Your task to perform on an android device: Clear all items from cart on walmart. Add "razer kraken" to the cart on walmart, then select checkout. Image 0: 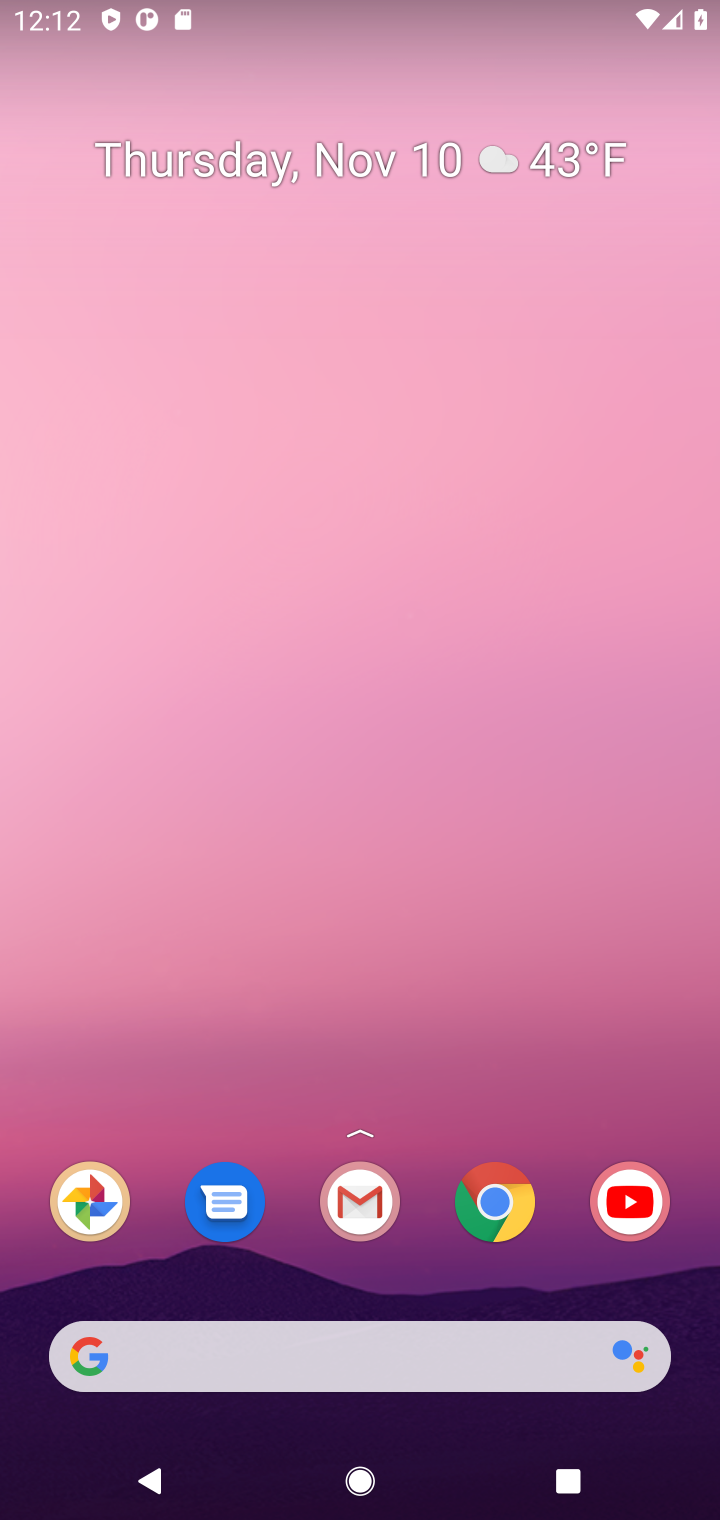
Step 0: click (513, 1206)
Your task to perform on an android device: Clear all items from cart on walmart. Add "razer kraken" to the cart on walmart, then select checkout. Image 1: 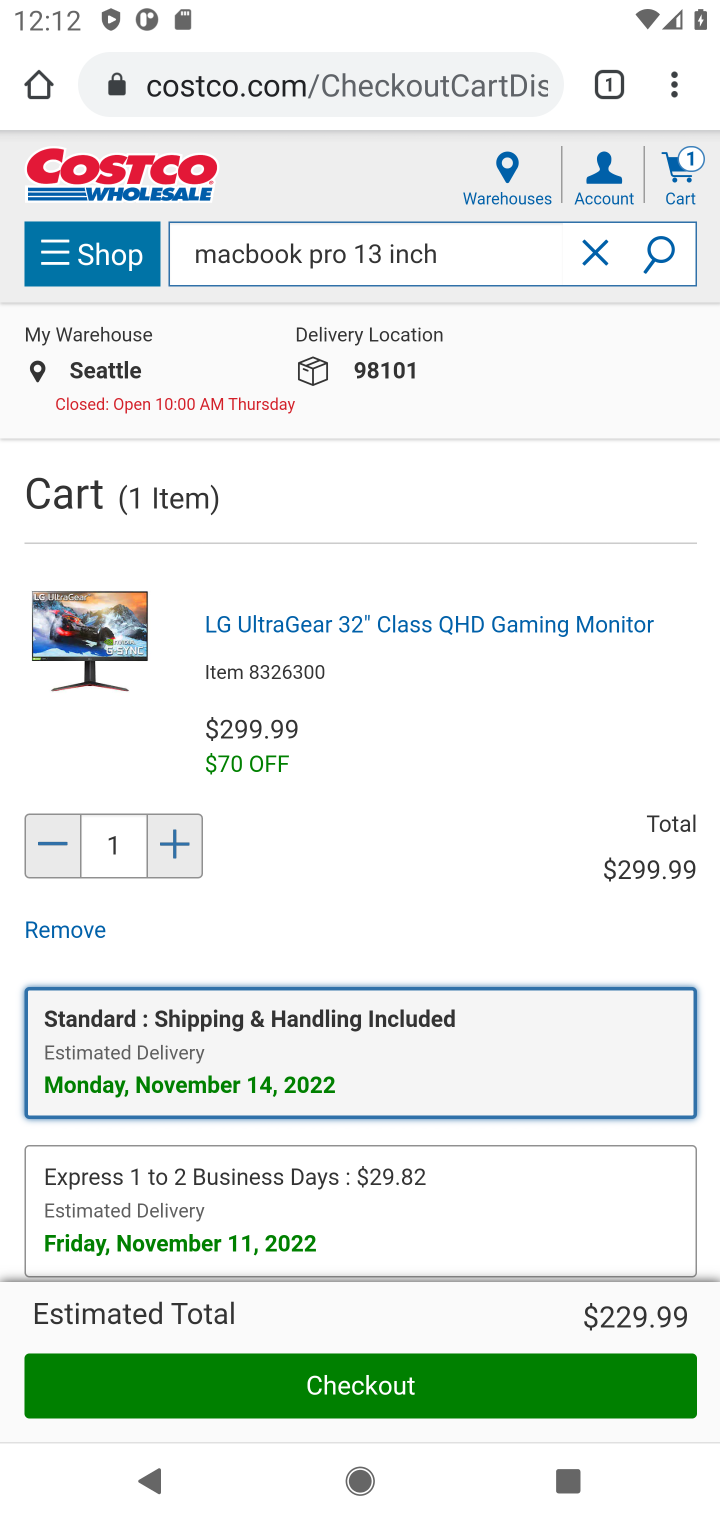
Step 1: click (276, 73)
Your task to perform on an android device: Clear all items from cart on walmart. Add "razer kraken" to the cart on walmart, then select checkout. Image 2: 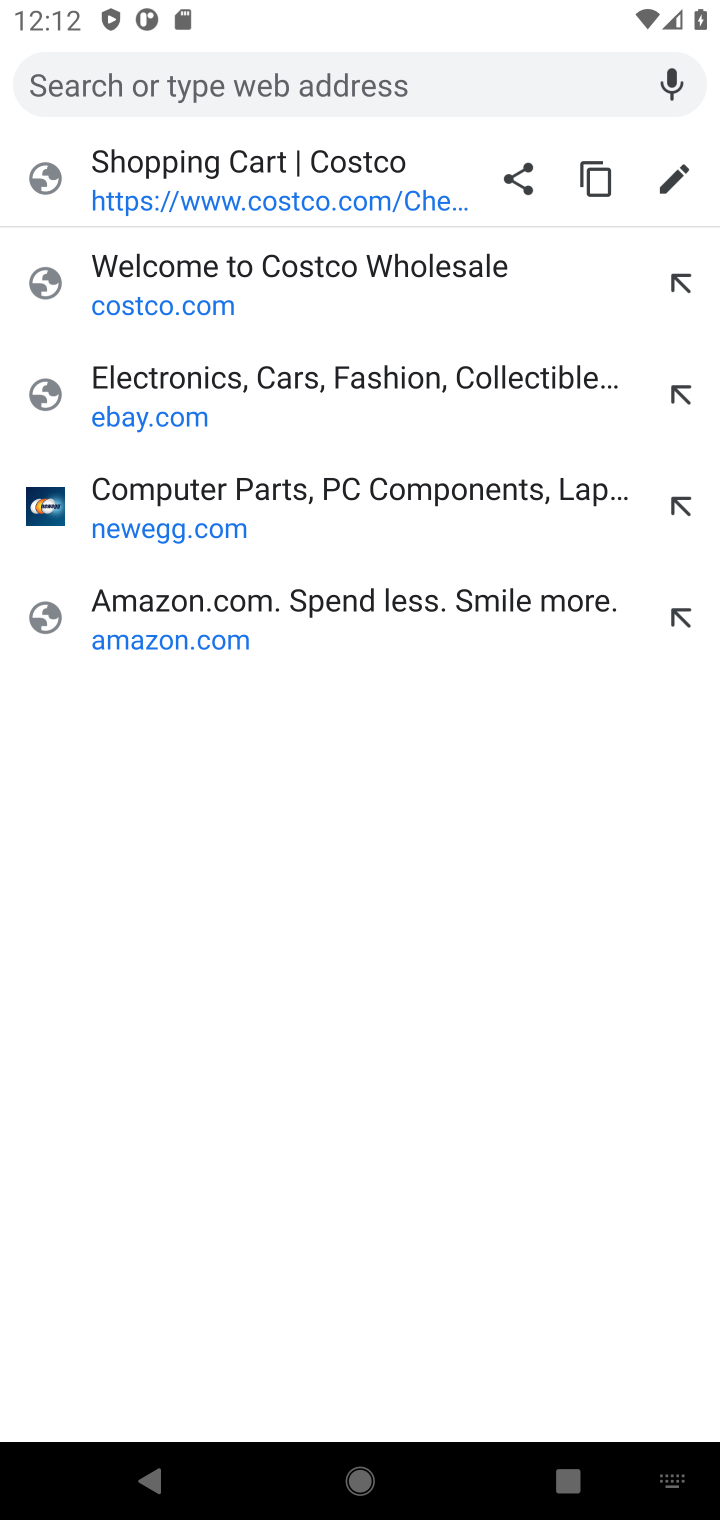
Step 2: type "walmart"
Your task to perform on an android device: Clear all items from cart on walmart. Add "razer kraken" to the cart on walmart, then select checkout. Image 3: 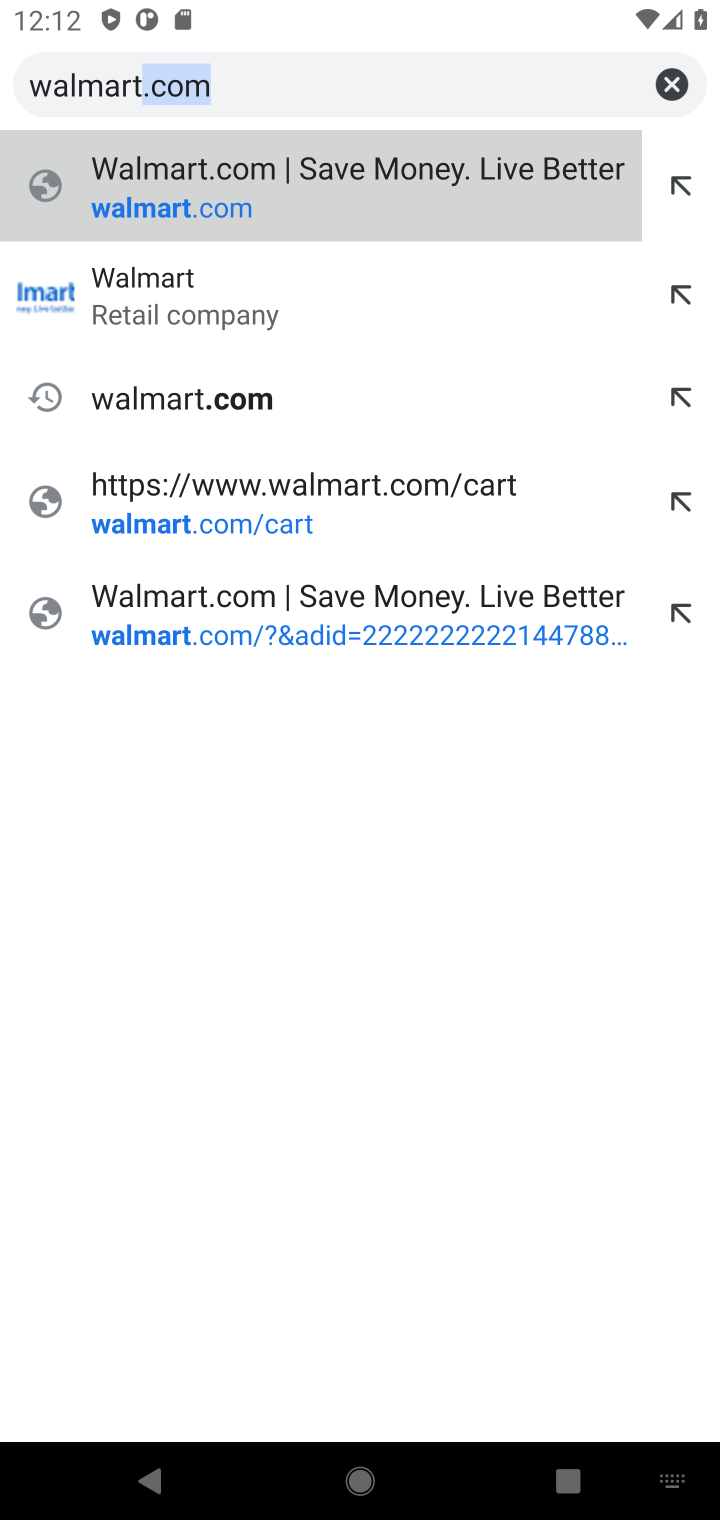
Step 3: press enter
Your task to perform on an android device: Clear all items from cart on walmart. Add "razer kraken" to the cart on walmart, then select checkout. Image 4: 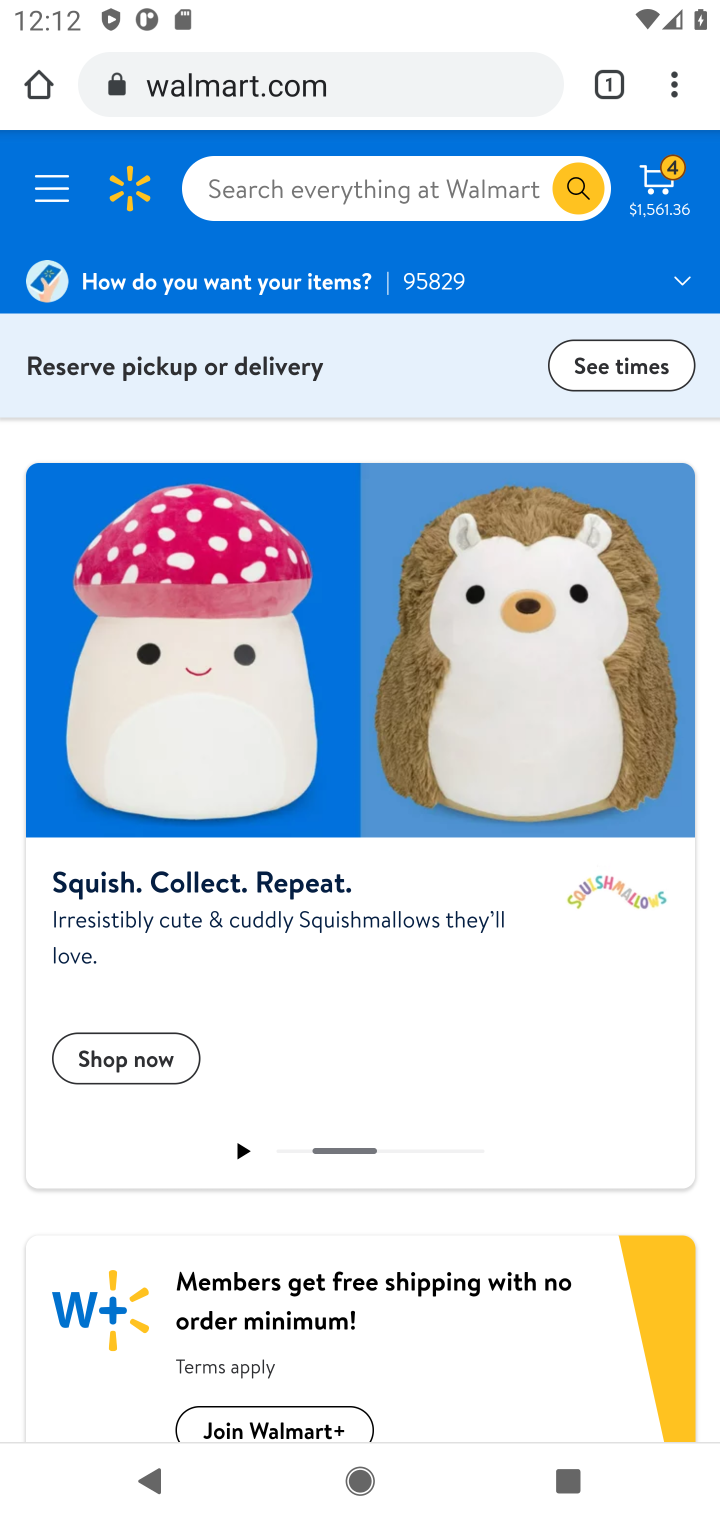
Step 4: click (669, 199)
Your task to perform on an android device: Clear all items from cart on walmart. Add "razer kraken" to the cart on walmart, then select checkout. Image 5: 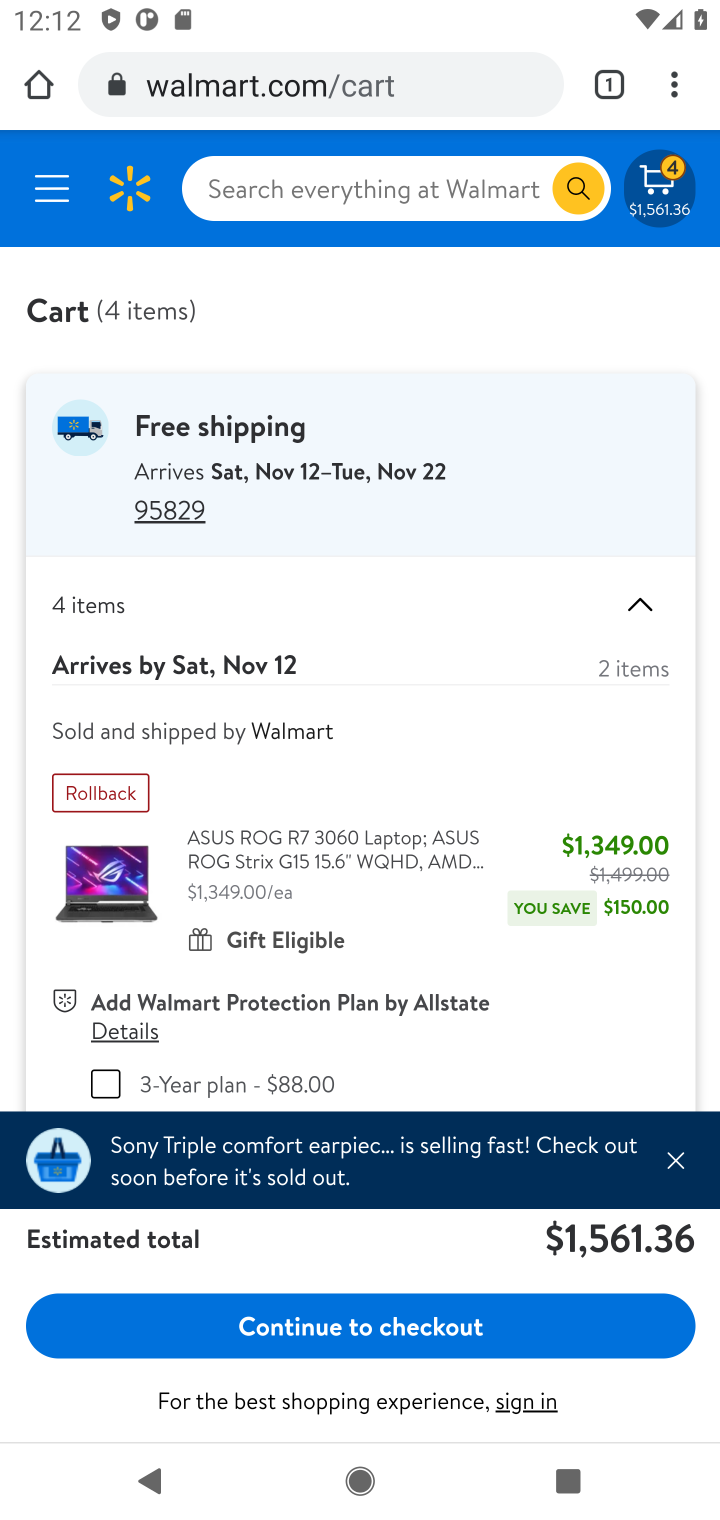
Step 5: drag from (513, 865) to (520, 481)
Your task to perform on an android device: Clear all items from cart on walmart. Add "razer kraken" to the cart on walmart, then select checkout. Image 6: 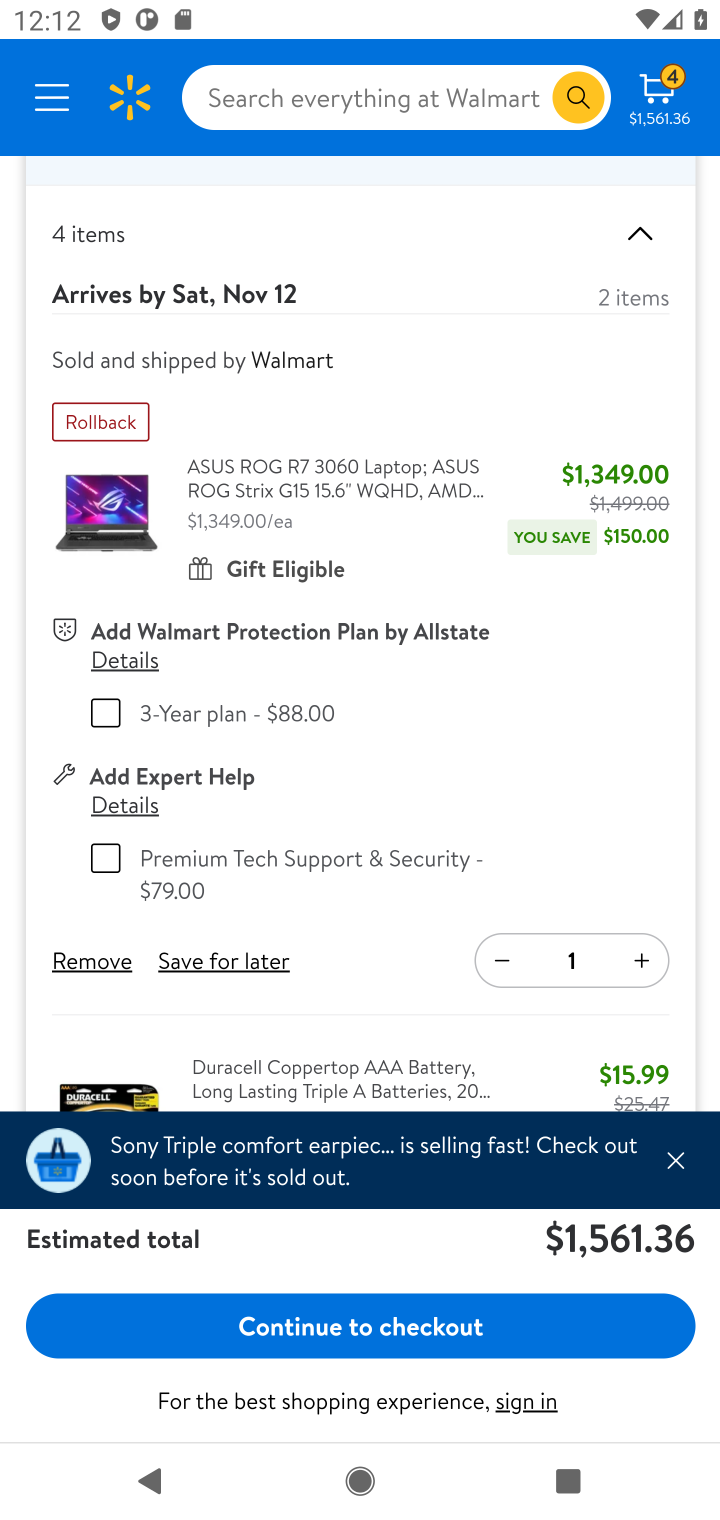
Step 6: click (82, 963)
Your task to perform on an android device: Clear all items from cart on walmart. Add "razer kraken" to the cart on walmart, then select checkout. Image 7: 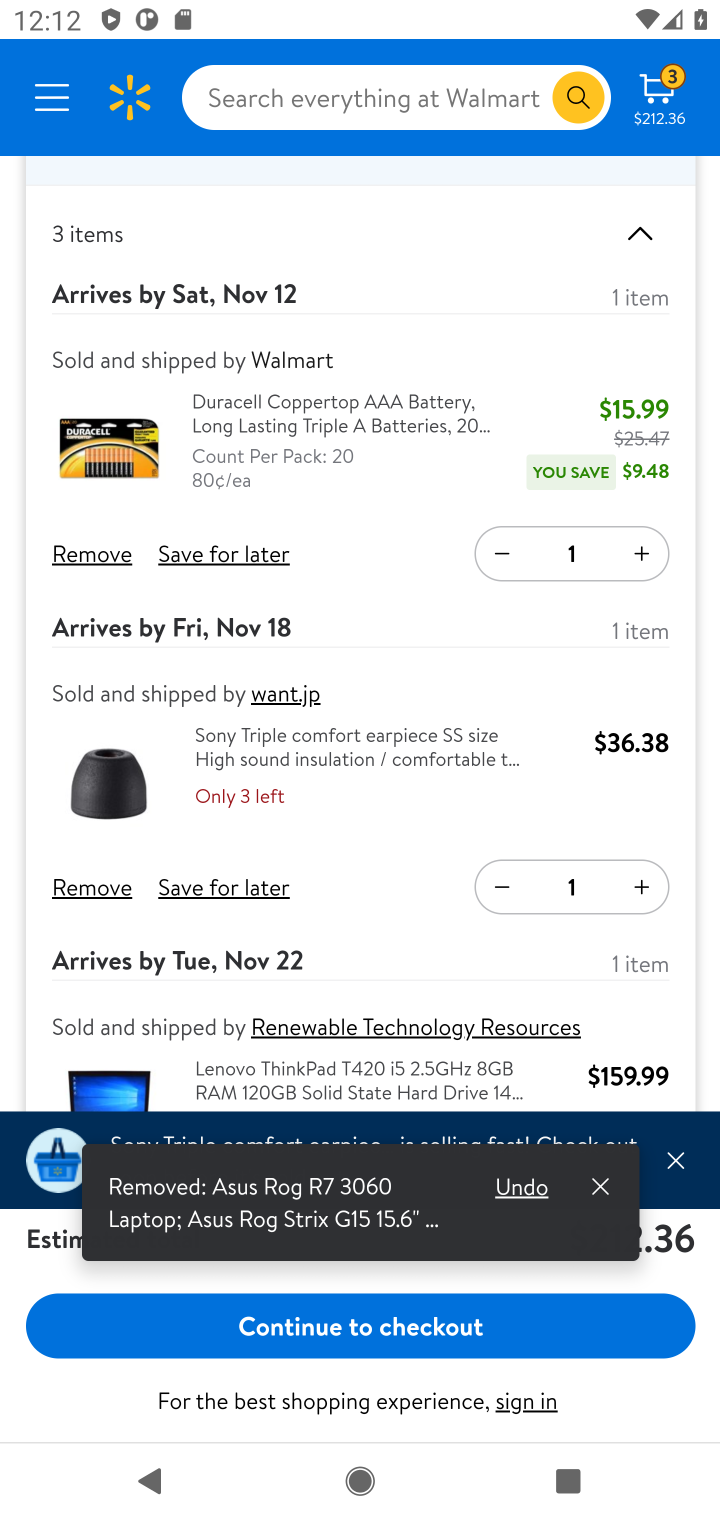
Step 7: click (105, 884)
Your task to perform on an android device: Clear all items from cart on walmart. Add "razer kraken" to the cart on walmart, then select checkout. Image 8: 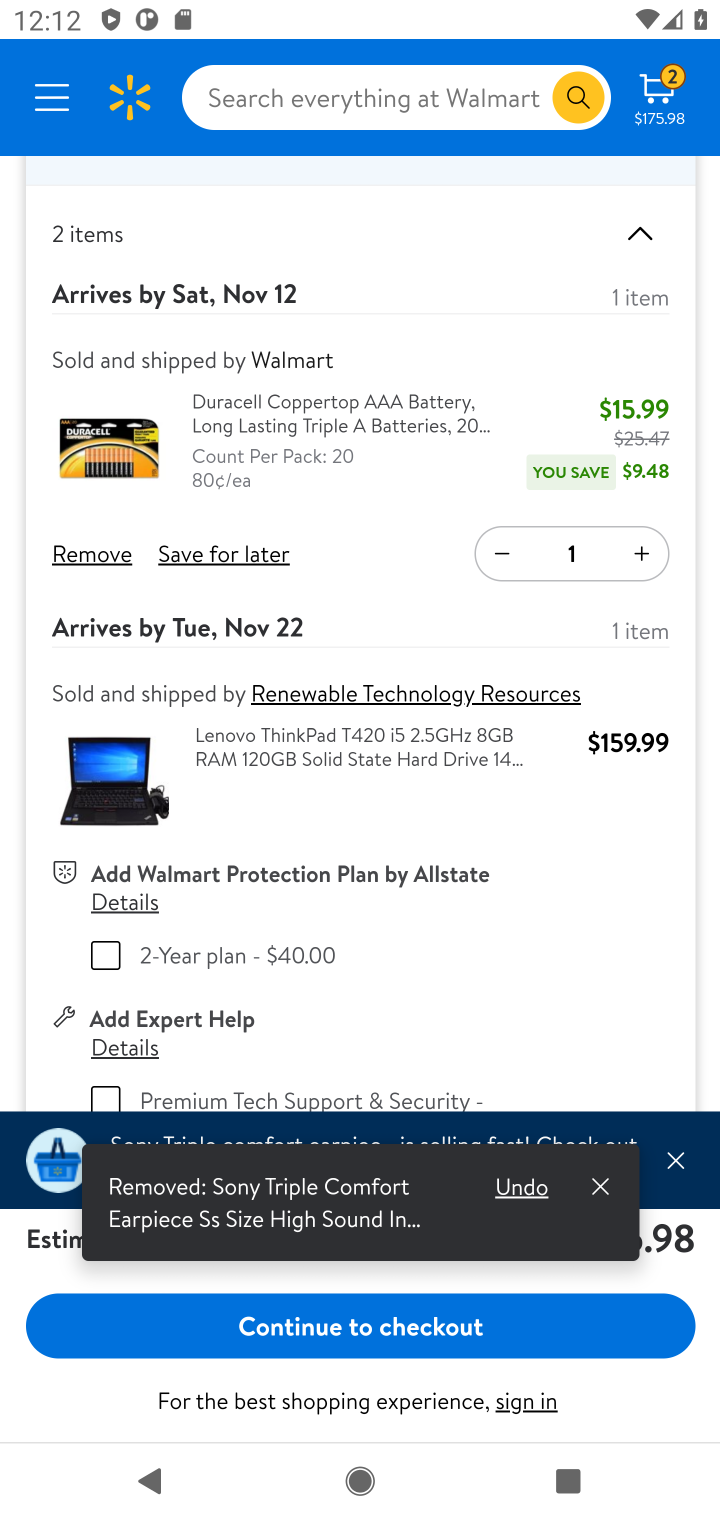
Step 8: click (76, 552)
Your task to perform on an android device: Clear all items from cart on walmart. Add "razer kraken" to the cart on walmart, then select checkout. Image 9: 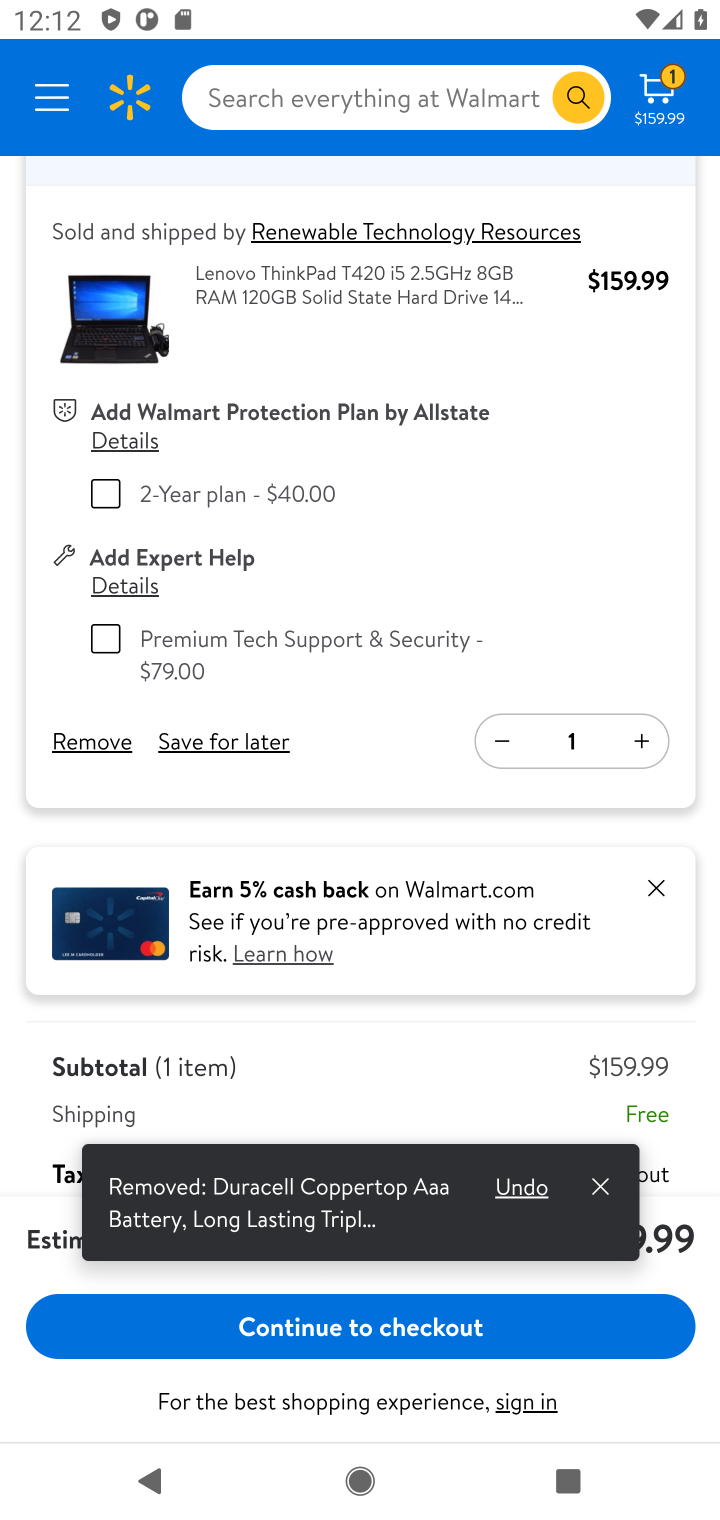
Step 9: click (84, 731)
Your task to perform on an android device: Clear all items from cart on walmart. Add "razer kraken" to the cart on walmart, then select checkout. Image 10: 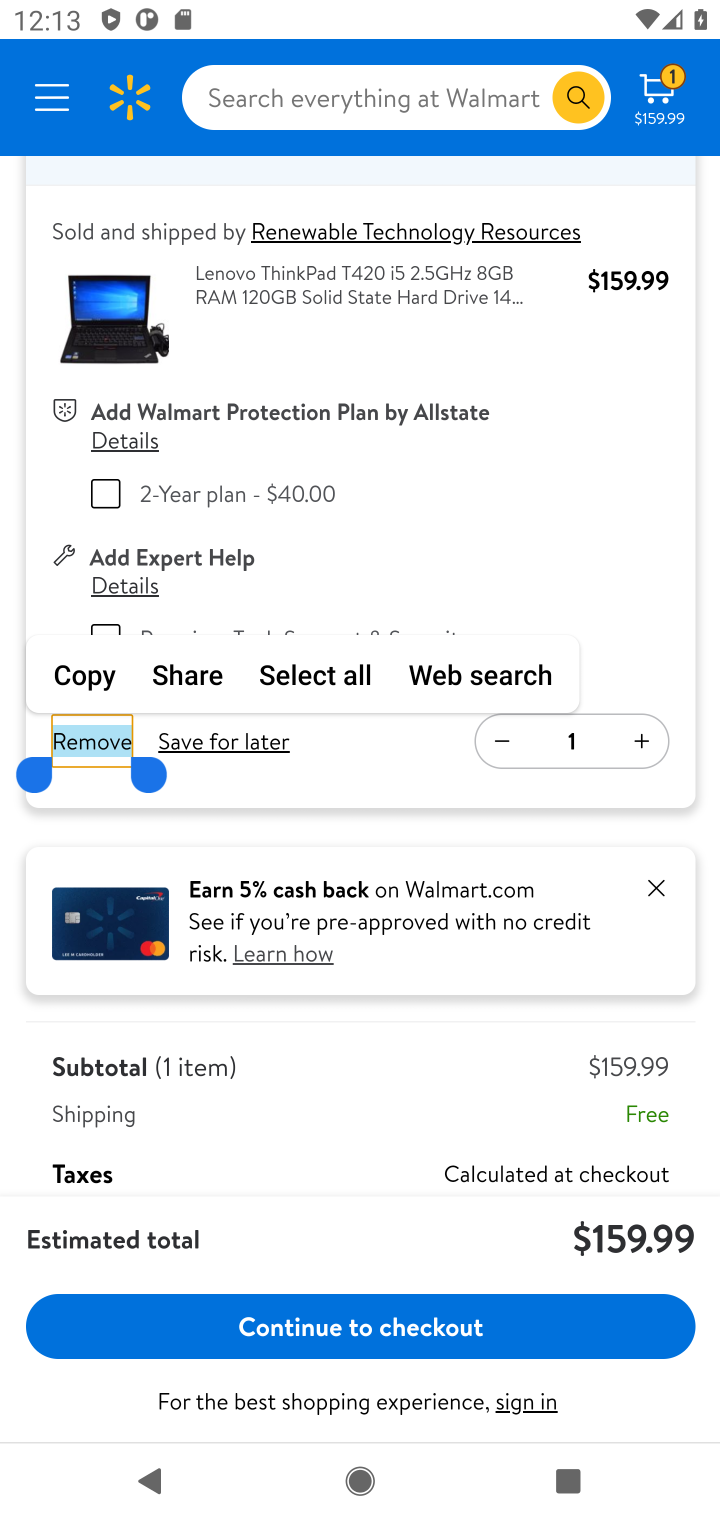
Step 10: click (83, 739)
Your task to perform on an android device: Clear all items from cart on walmart. Add "razer kraken" to the cart on walmart, then select checkout. Image 11: 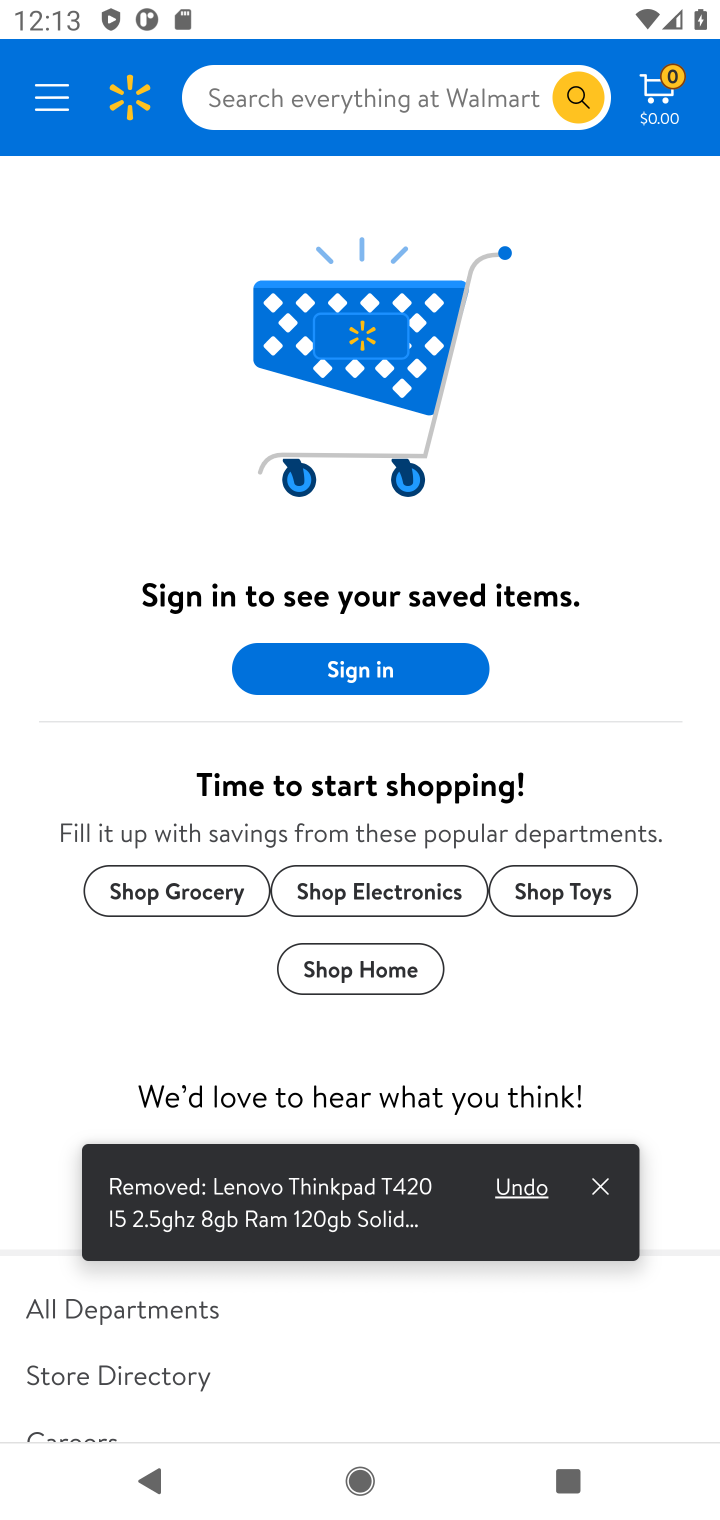
Step 11: click (421, 87)
Your task to perform on an android device: Clear all items from cart on walmart. Add "razer kraken" to the cart on walmart, then select checkout. Image 12: 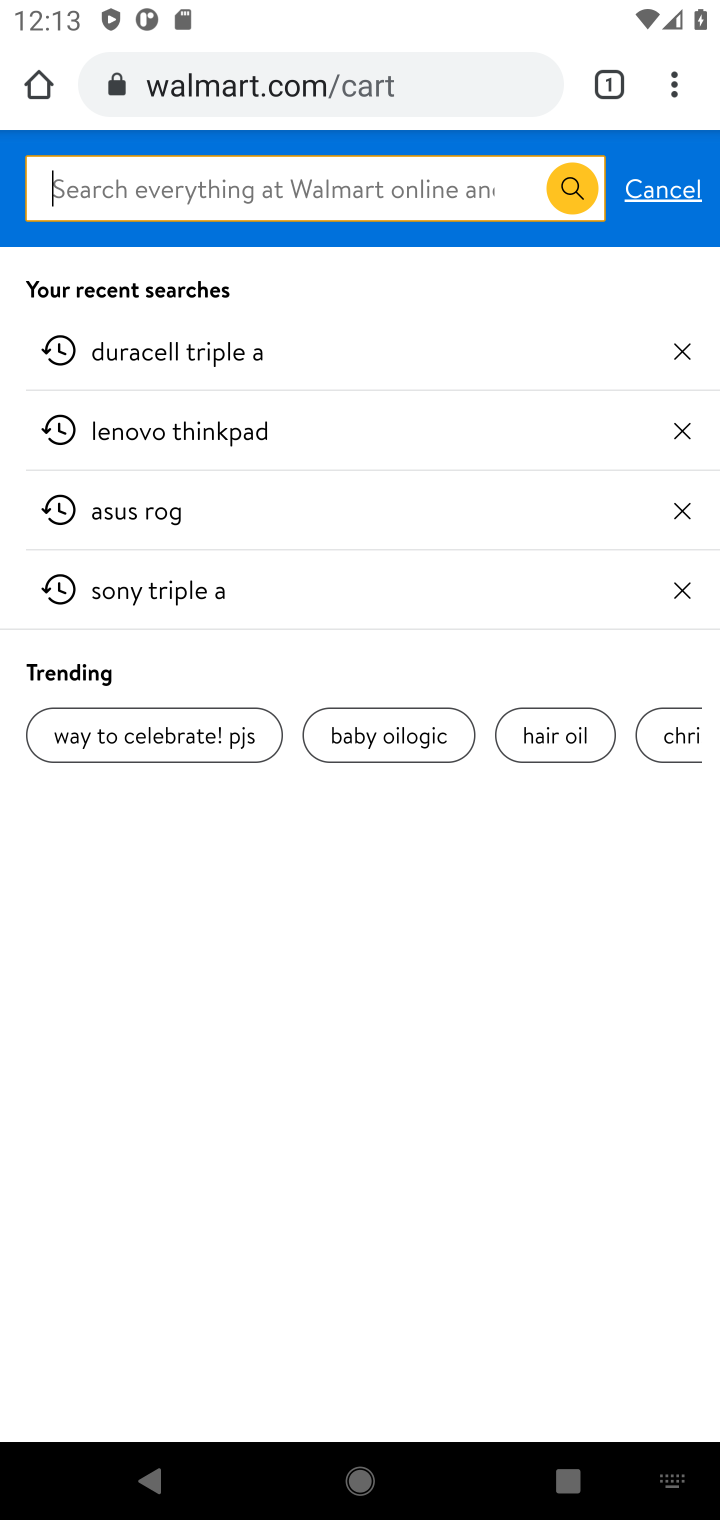
Step 12: press enter
Your task to perform on an android device: Clear all items from cart on walmart. Add "razer kraken" to the cart on walmart, then select checkout. Image 13: 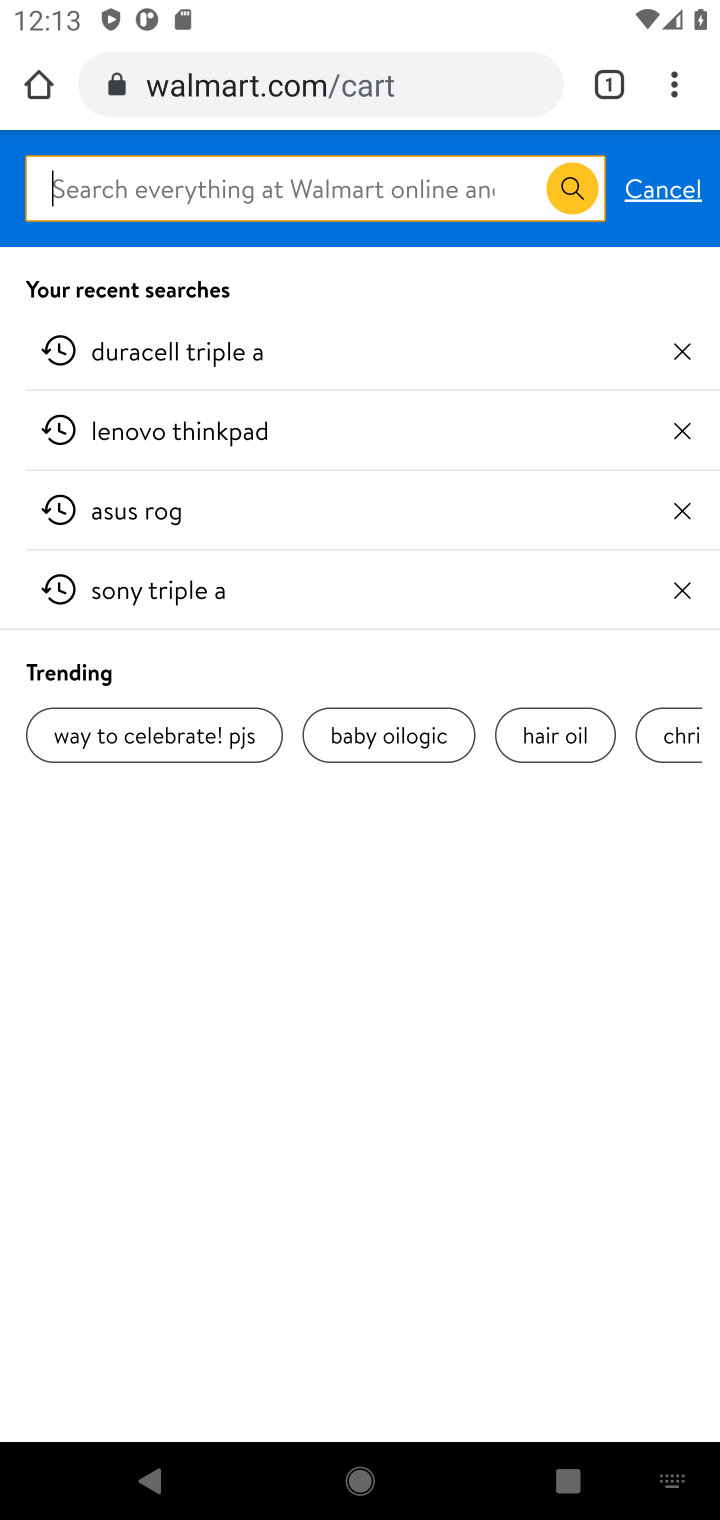
Step 13: type "razer kraken"
Your task to perform on an android device: Clear all items from cart on walmart. Add "razer kraken" to the cart on walmart, then select checkout. Image 14: 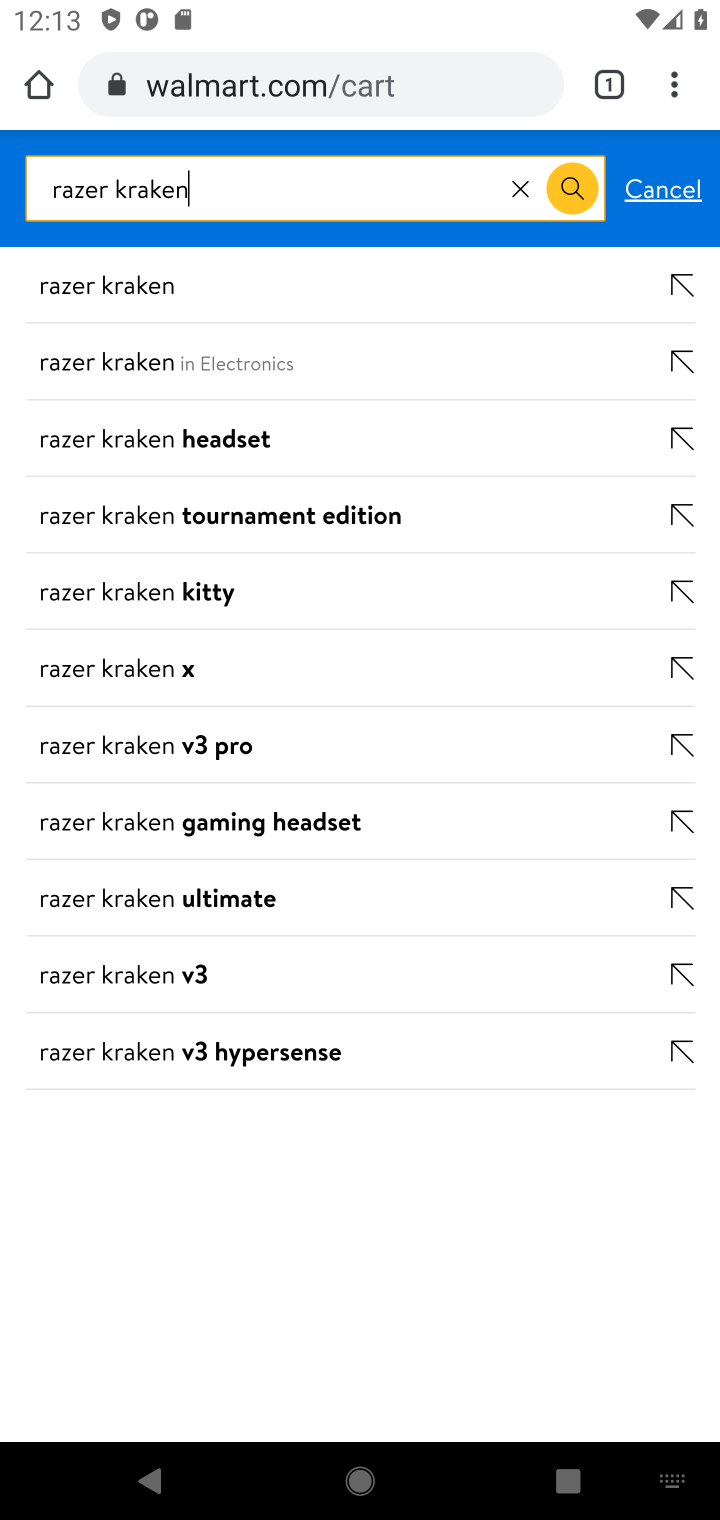
Step 14: click (141, 280)
Your task to perform on an android device: Clear all items from cart on walmart. Add "razer kraken" to the cart on walmart, then select checkout. Image 15: 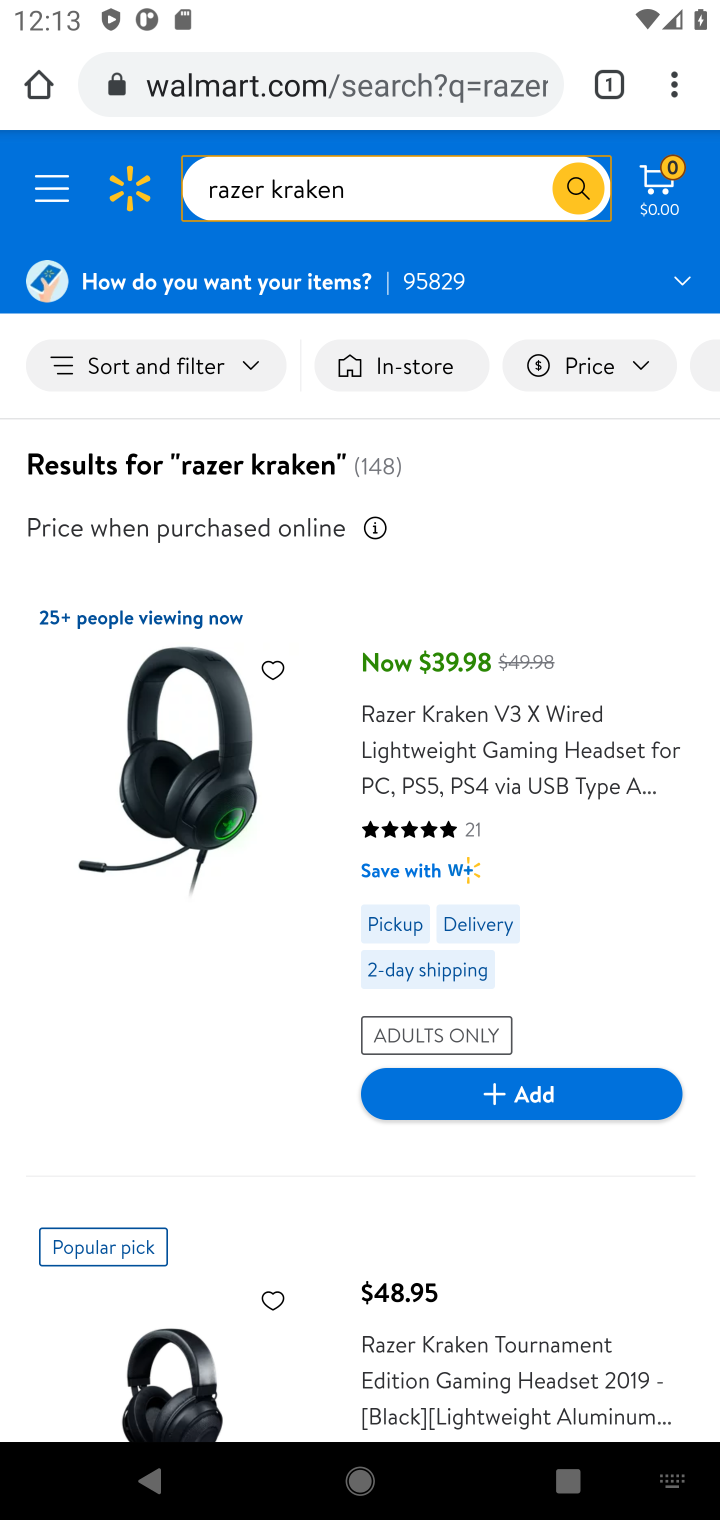
Step 15: click (146, 748)
Your task to perform on an android device: Clear all items from cart on walmart. Add "razer kraken" to the cart on walmart, then select checkout. Image 16: 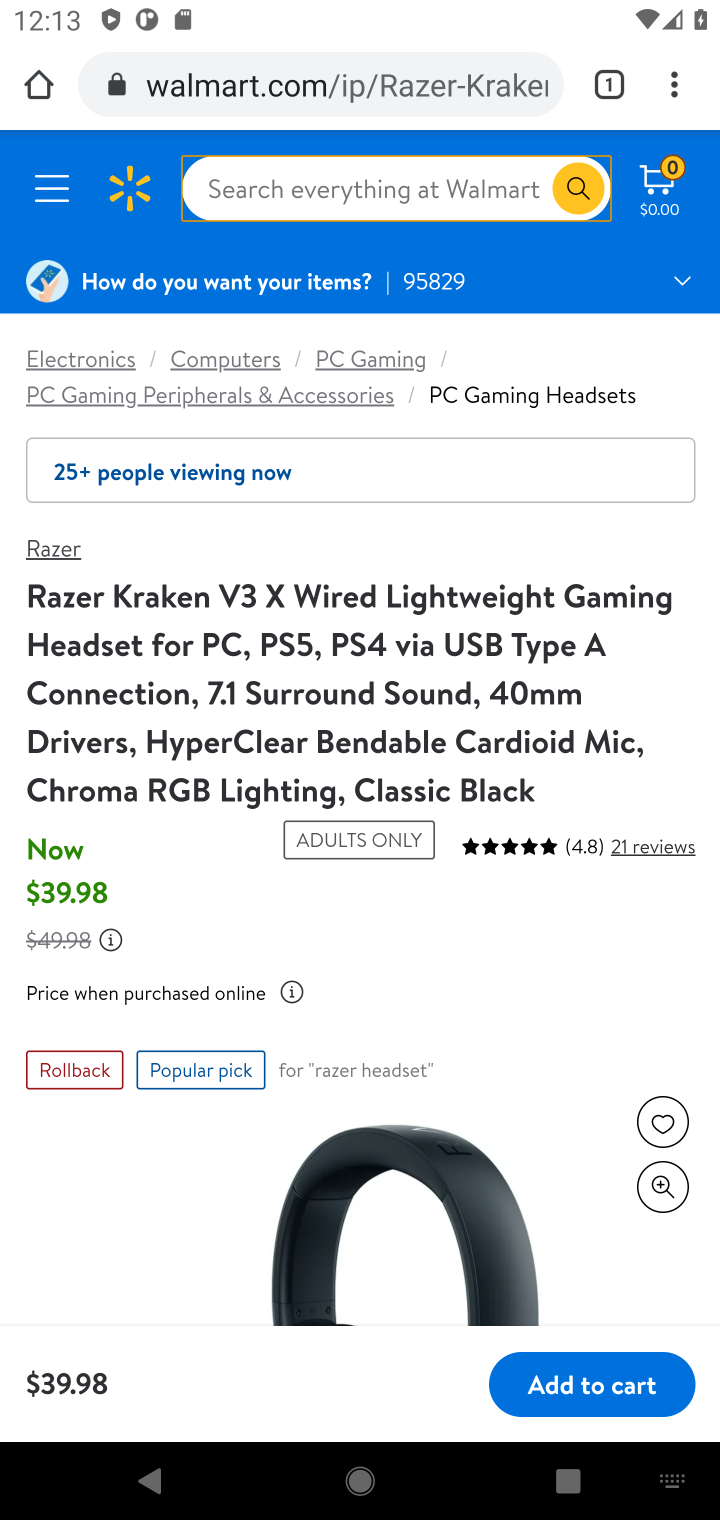
Step 16: drag from (568, 1015) to (544, 465)
Your task to perform on an android device: Clear all items from cart on walmart. Add "razer kraken" to the cart on walmart, then select checkout. Image 17: 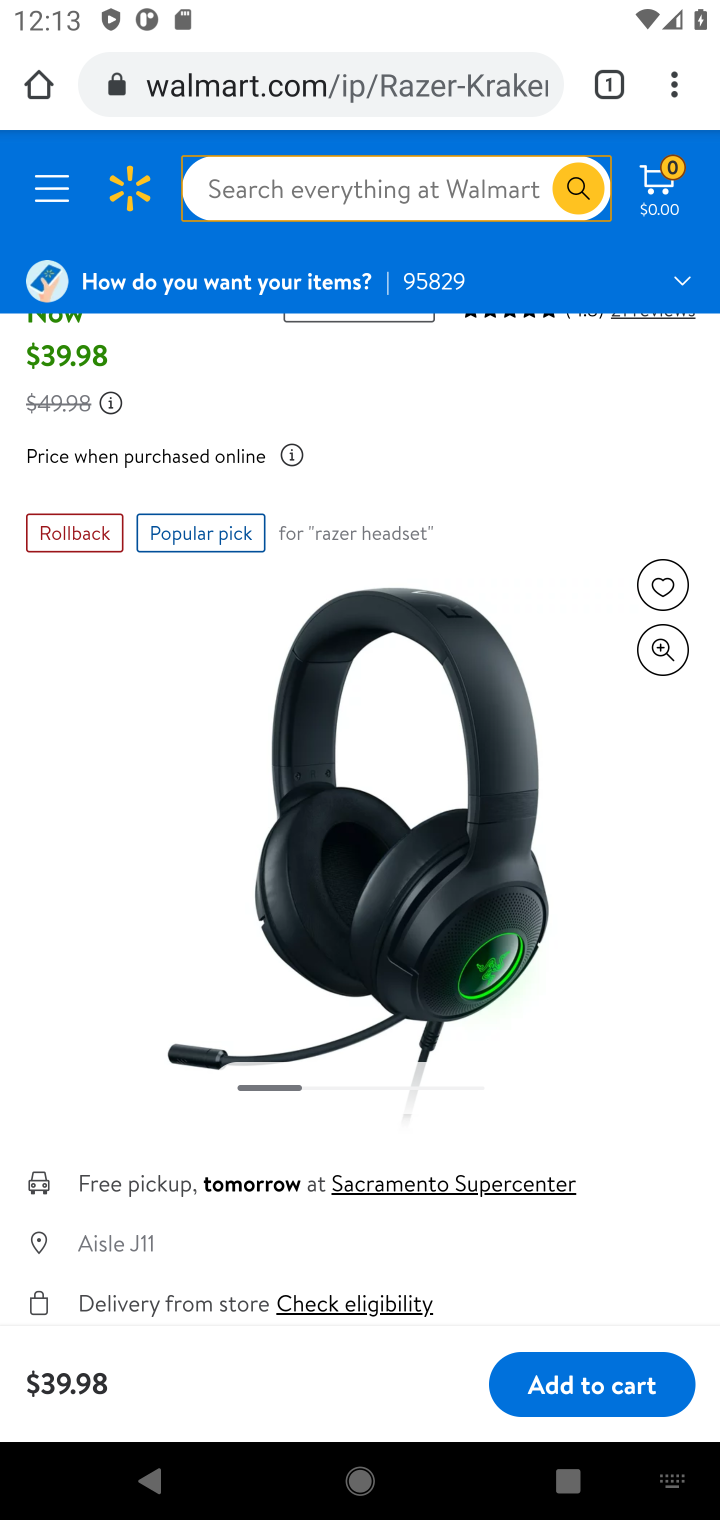
Step 17: click (589, 1388)
Your task to perform on an android device: Clear all items from cart on walmart. Add "razer kraken" to the cart on walmart, then select checkout. Image 18: 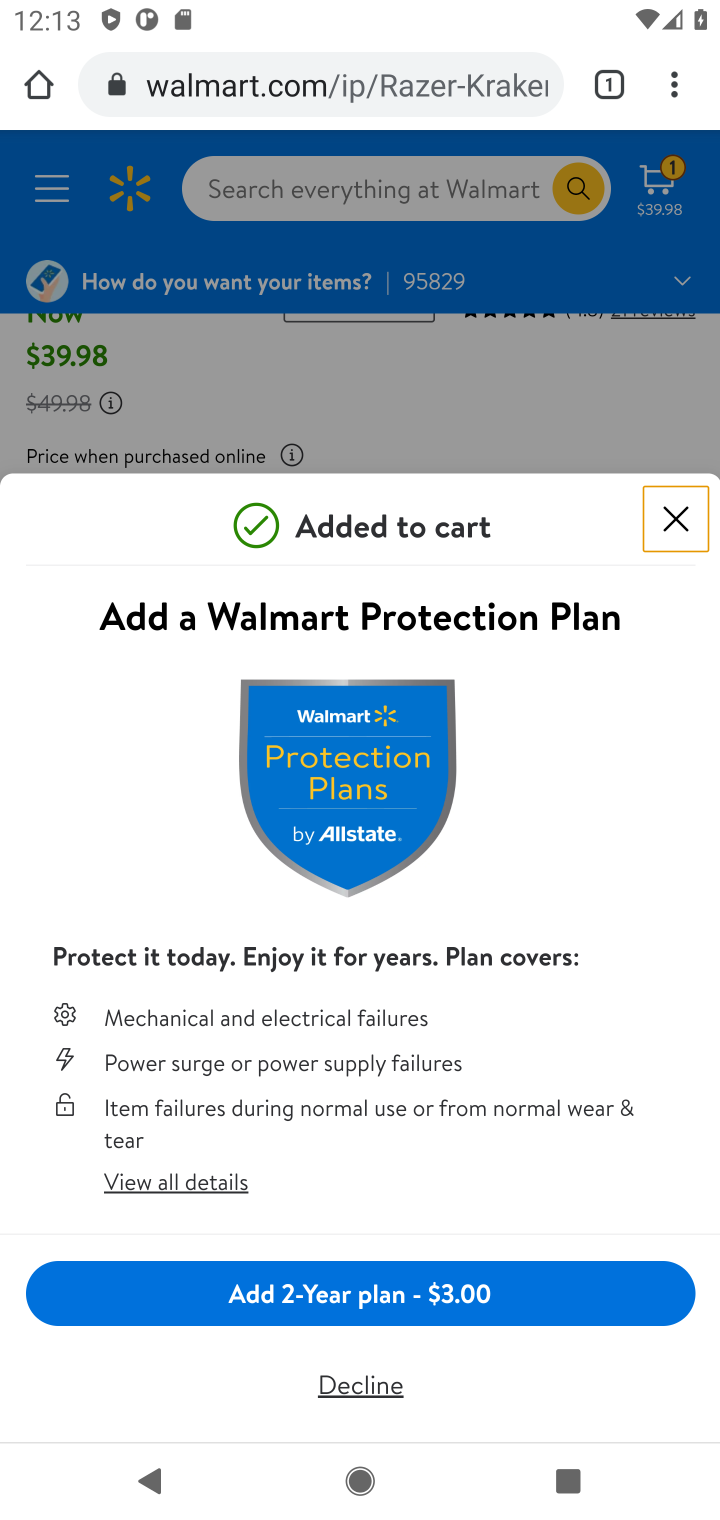
Step 18: click (674, 518)
Your task to perform on an android device: Clear all items from cart on walmart. Add "razer kraken" to the cart on walmart, then select checkout. Image 19: 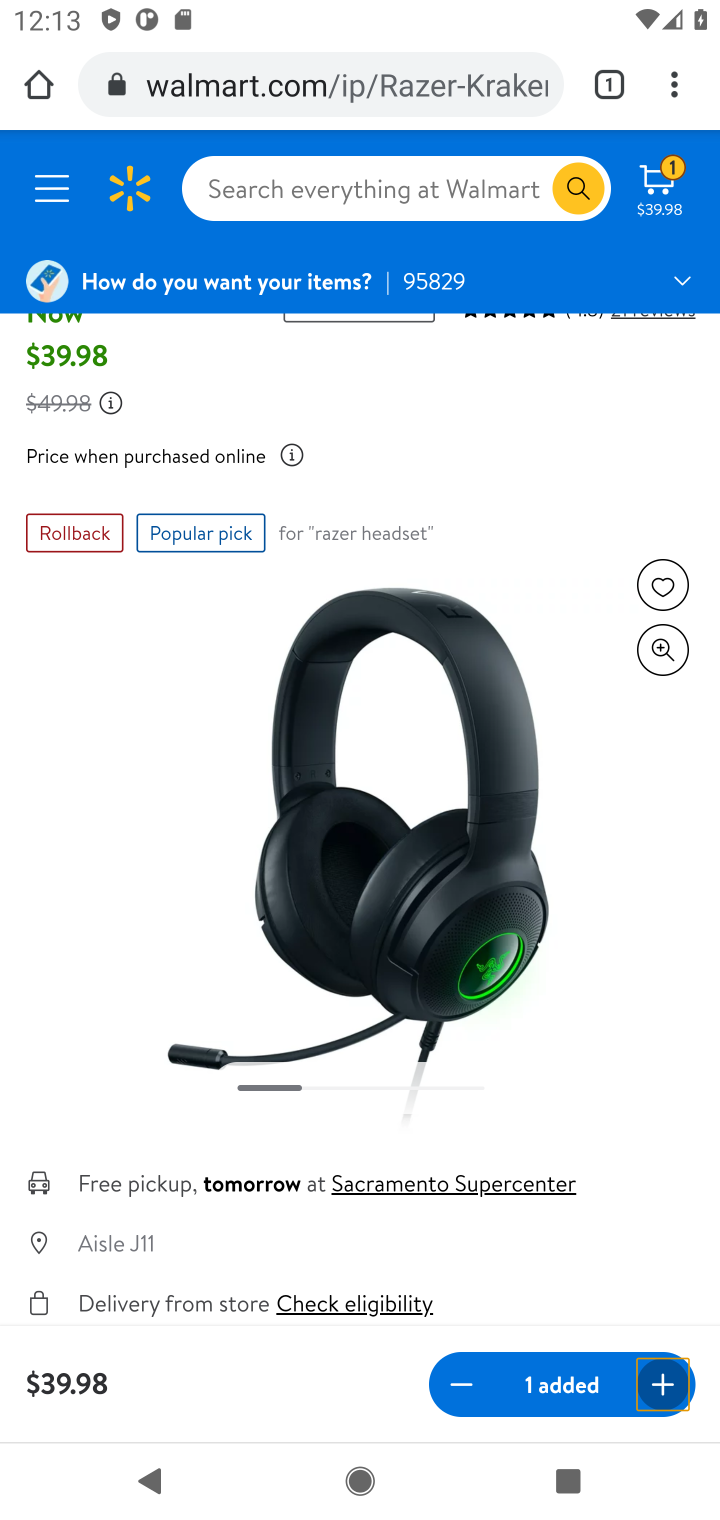
Step 19: click (672, 200)
Your task to perform on an android device: Clear all items from cart on walmart. Add "razer kraken" to the cart on walmart, then select checkout. Image 20: 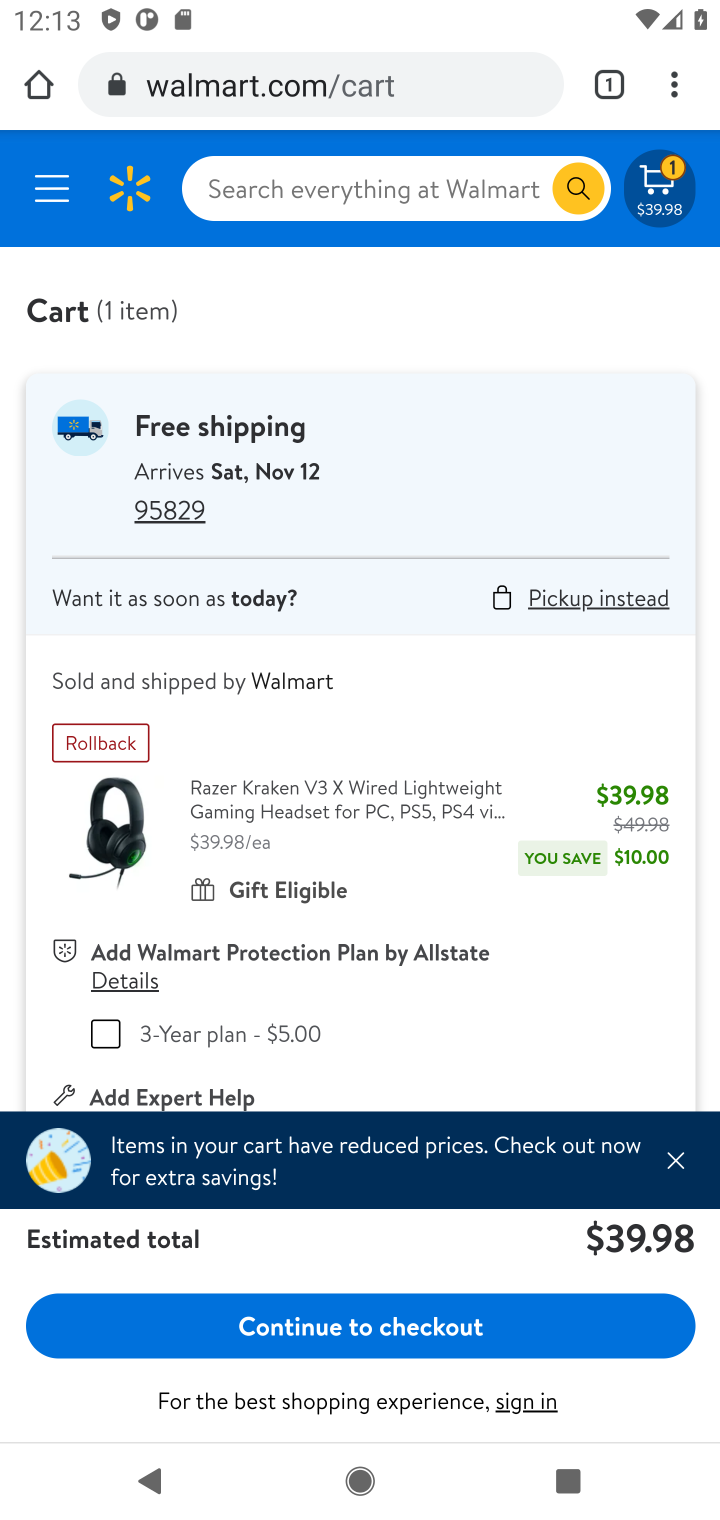
Step 20: click (375, 1328)
Your task to perform on an android device: Clear all items from cart on walmart. Add "razer kraken" to the cart on walmart, then select checkout. Image 21: 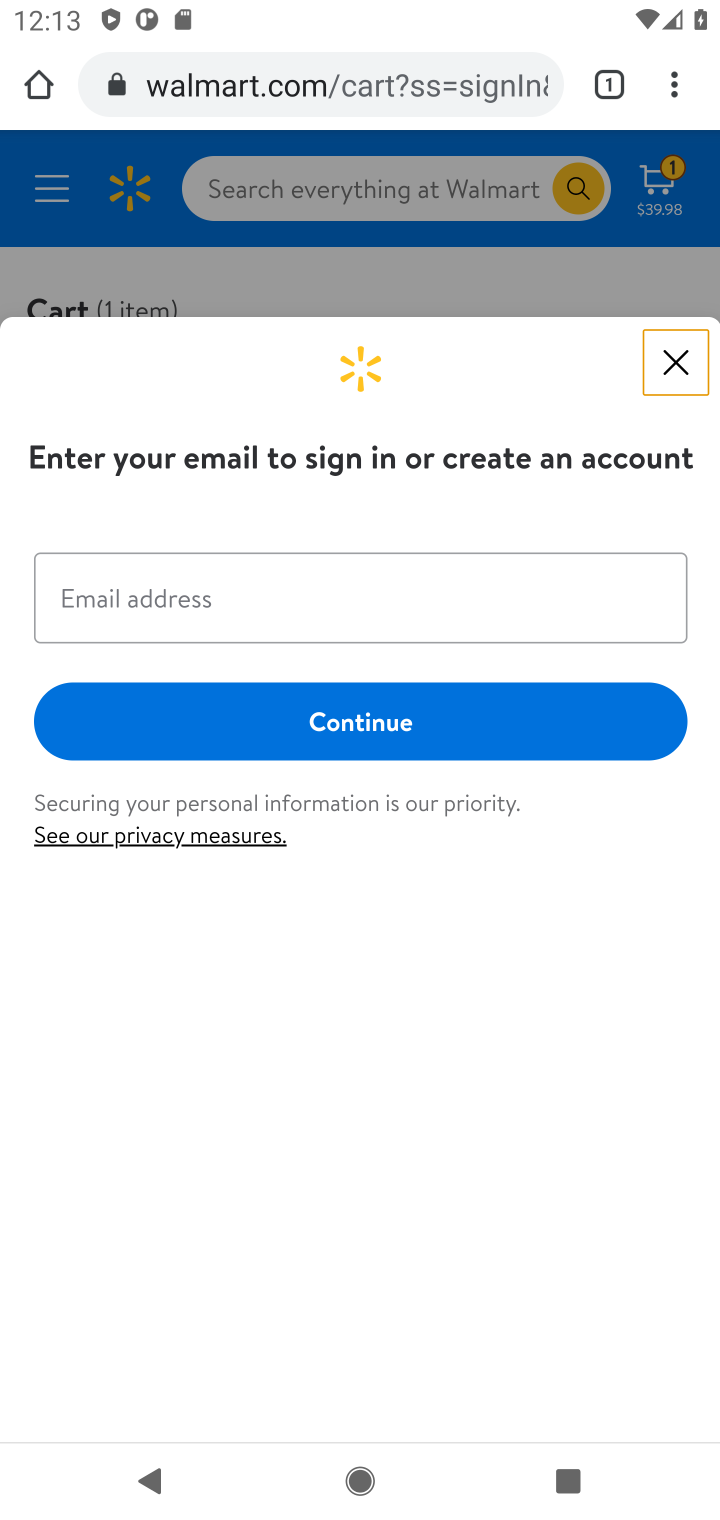
Step 21: task complete